Your task to perform on an android device: change alarm snooze length Image 0: 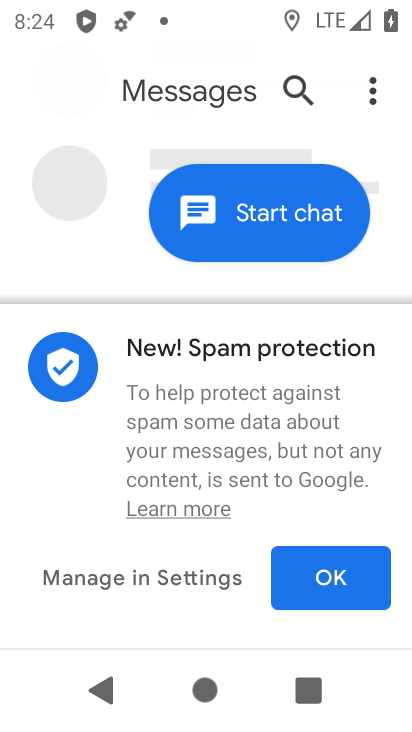
Step 0: press home button
Your task to perform on an android device: change alarm snooze length Image 1: 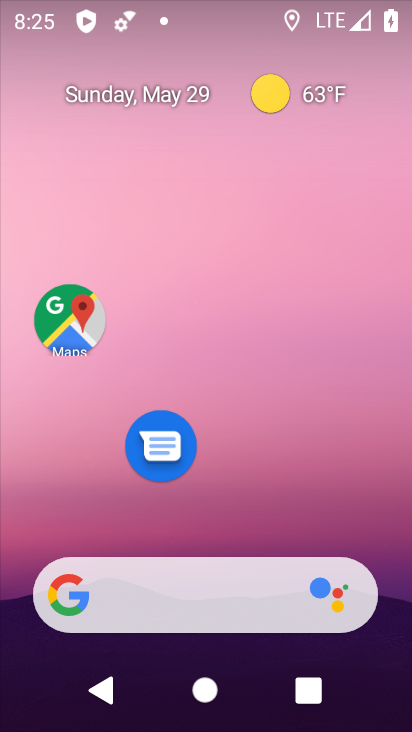
Step 1: drag from (221, 526) to (167, 177)
Your task to perform on an android device: change alarm snooze length Image 2: 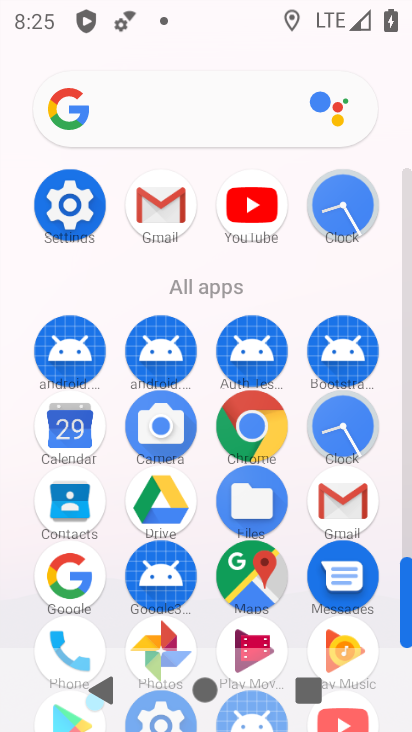
Step 2: click (343, 205)
Your task to perform on an android device: change alarm snooze length Image 3: 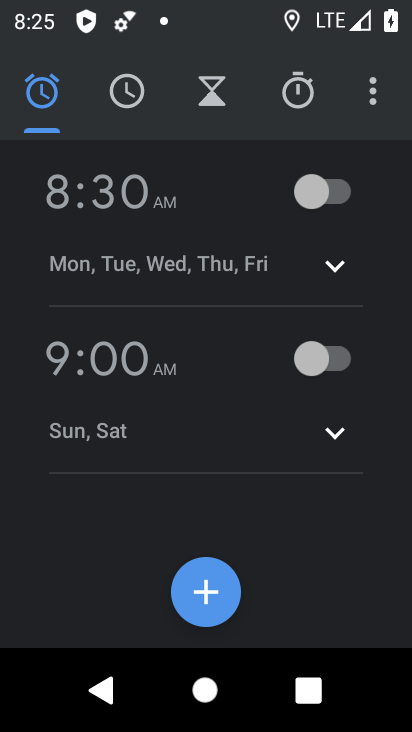
Step 3: click (356, 101)
Your task to perform on an android device: change alarm snooze length Image 4: 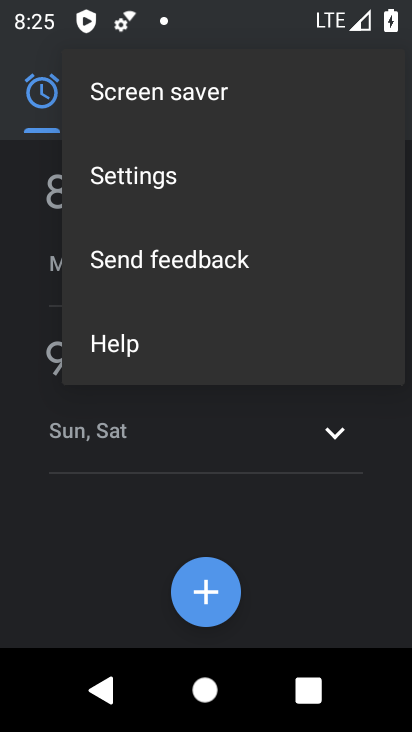
Step 4: click (173, 194)
Your task to perform on an android device: change alarm snooze length Image 5: 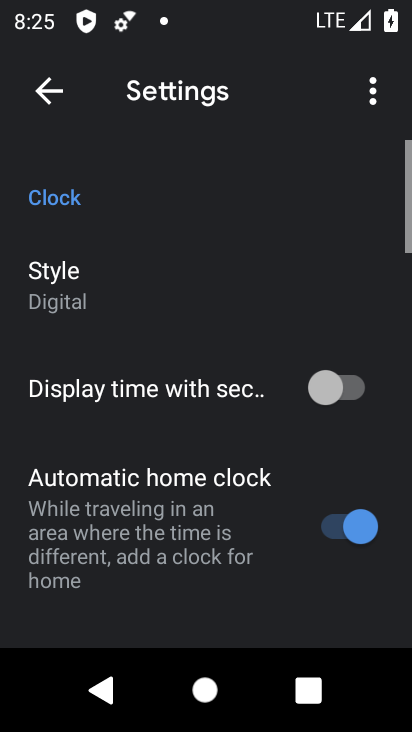
Step 5: drag from (176, 513) to (192, 203)
Your task to perform on an android device: change alarm snooze length Image 6: 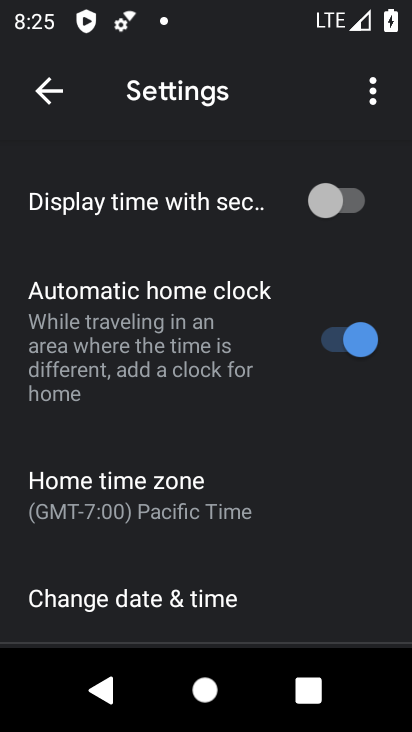
Step 6: drag from (174, 496) to (189, 231)
Your task to perform on an android device: change alarm snooze length Image 7: 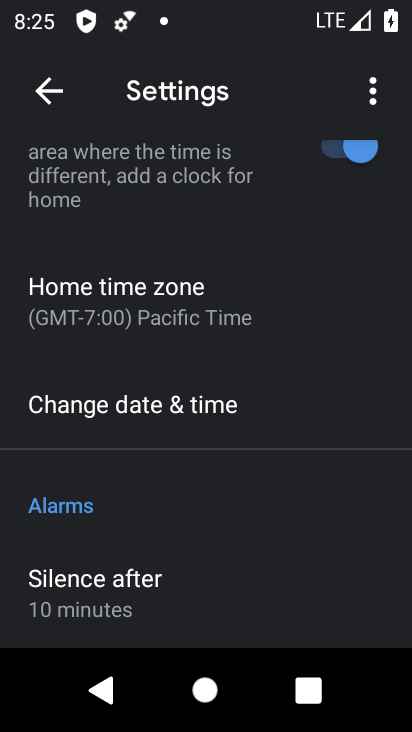
Step 7: drag from (218, 579) to (199, 330)
Your task to perform on an android device: change alarm snooze length Image 8: 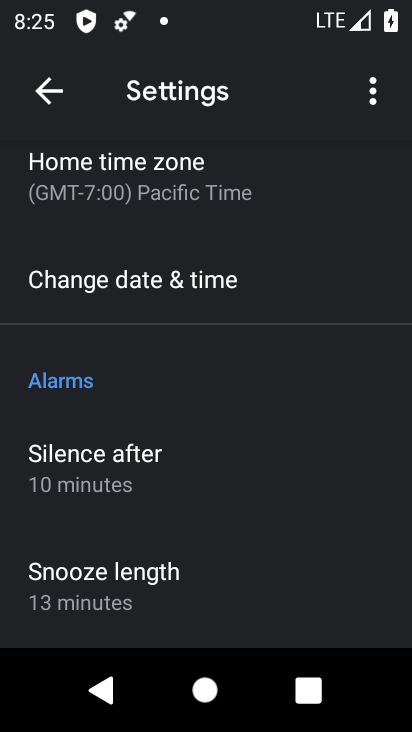
Step 8: click (188, 582)
Your task to perform on an android device: change alarm snooze length Image 9: 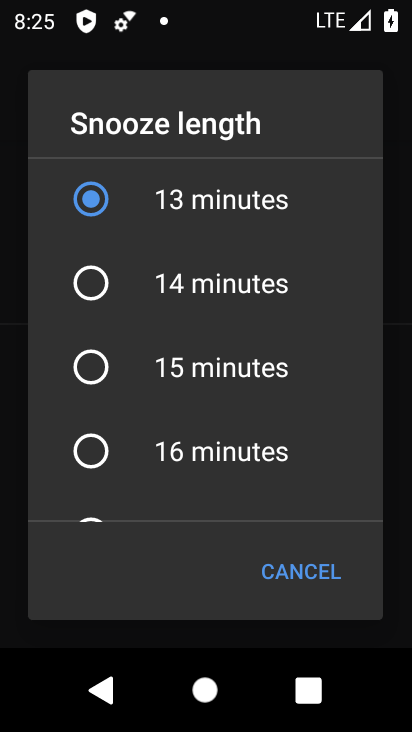
Step 9: click (190, 467)
Your task to perform on an android device: change alarm snooze length Image 10: 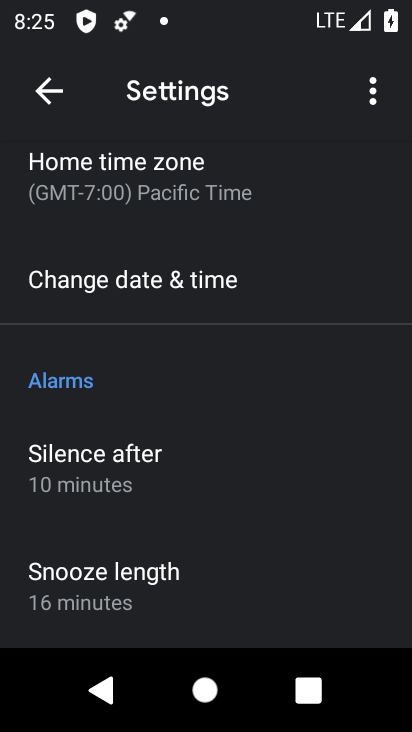
Step 10: task complete